Your task to perform on an android device: When is my next meeting? Image 0: 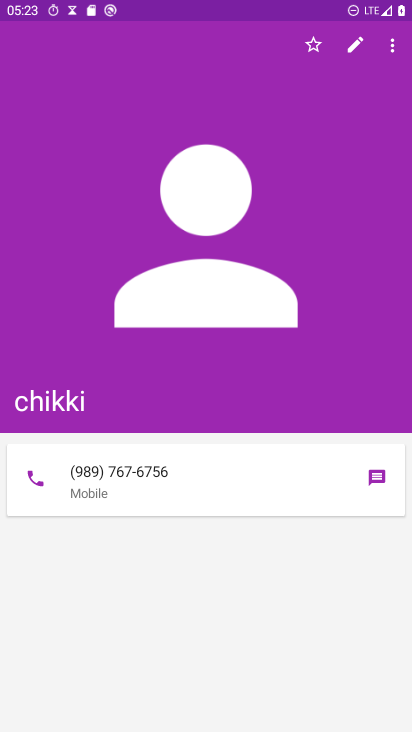
Step 0: press home button
Your task to perform on an android device: When is my next meeting? Image 1: 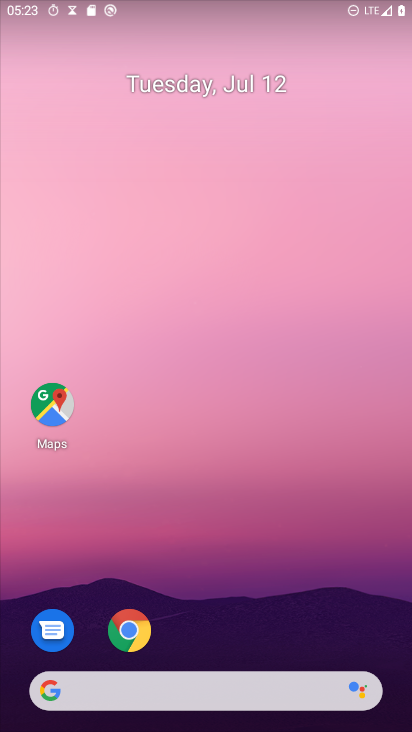
Step 1: drag from (138, 677) to (229, 50)
Your task to perform on an android device: When is my next meeting? Image 2: 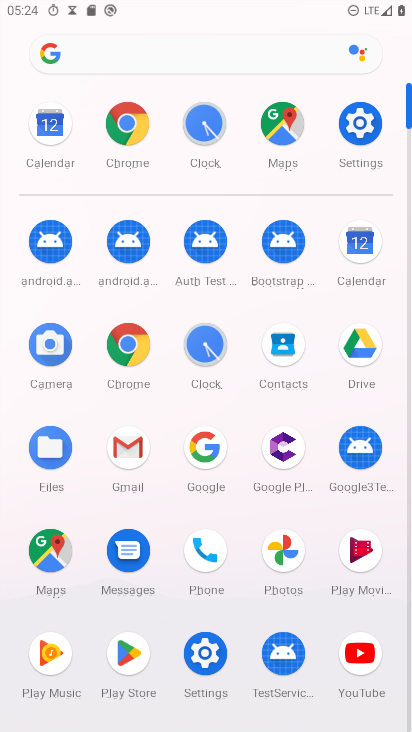
Step 2: click (357, 256)
Your task to perform on an android device: When is my next meeting? Image 3: 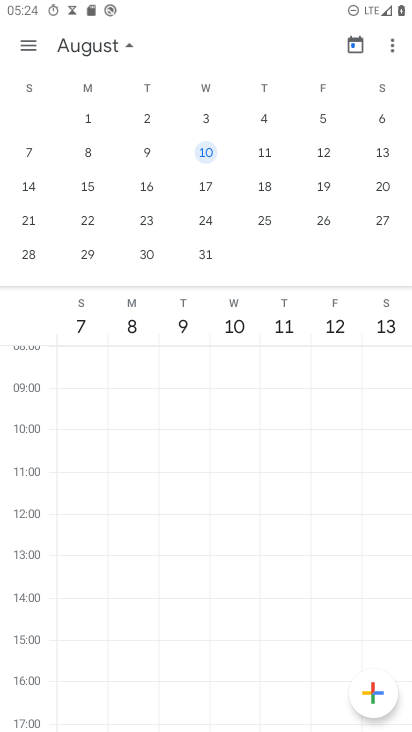
Step 3: drag from (125, 174) to (395, 196)
Your task to perform on an android device: When is my next meeting? Image 4: 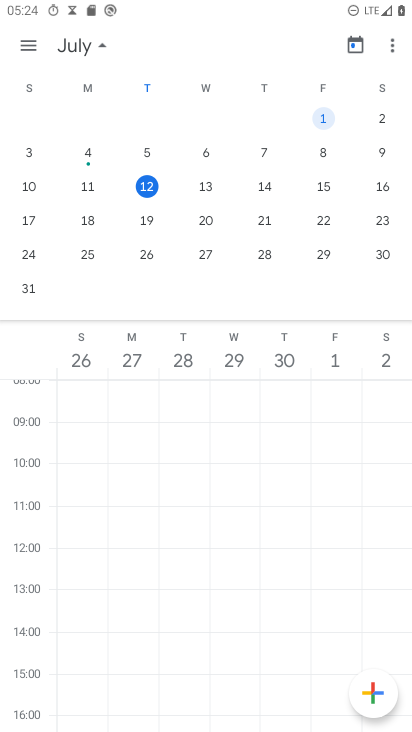
Step 4: click (202, 187)
Your task to perform on an android device: When is my next meeting? Image 5: 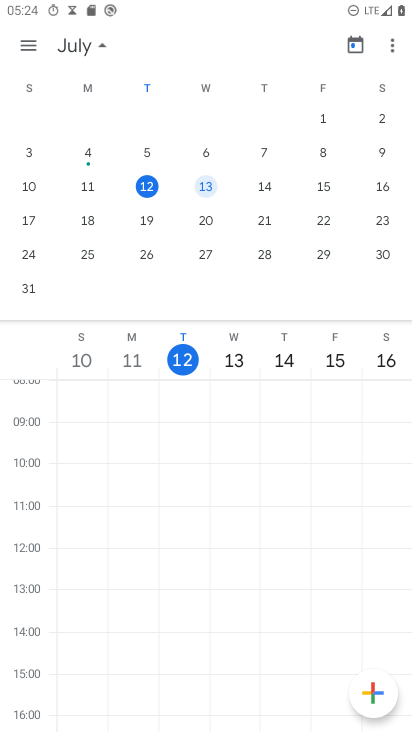
Step 5: task complete